Your task to perform on an android device: Play the last video I watched on Youtube Image 0: 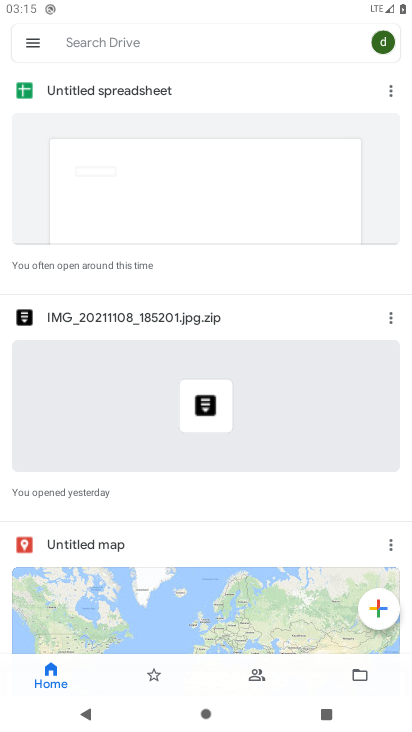
Step 0: press home button
Your task to perform on an android device: Play the last video I watched on Youtube Image 1: 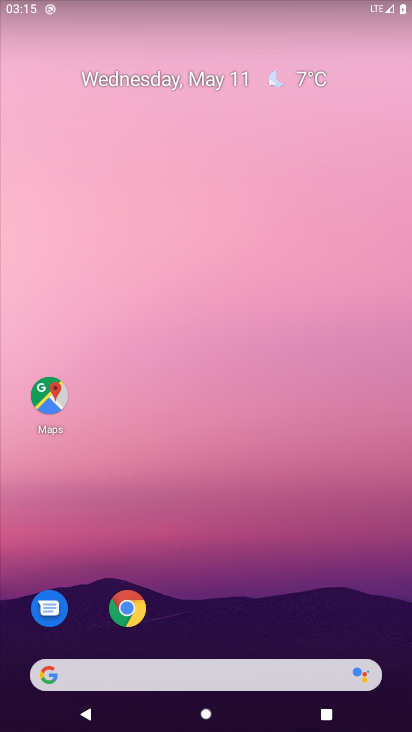
Step 1: drag from (205, 637) to (239, 89)
Your task to perform on an android device: Play the last video I watched on Youtube Image 2: 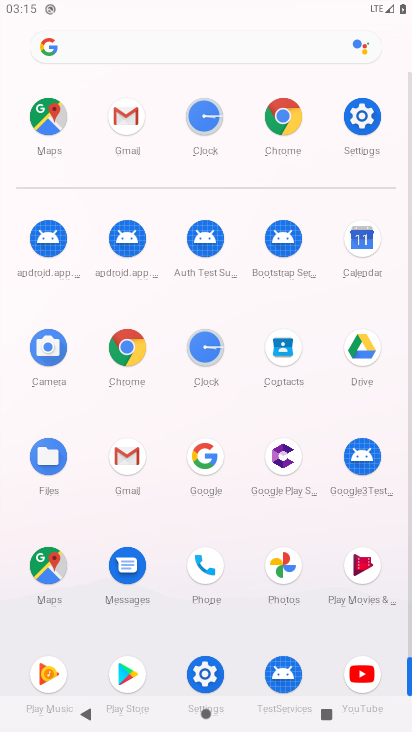
Step 2: click (363, 668)
Your task to perform on an android device: Play the last video I watched on Youtube Image 3: 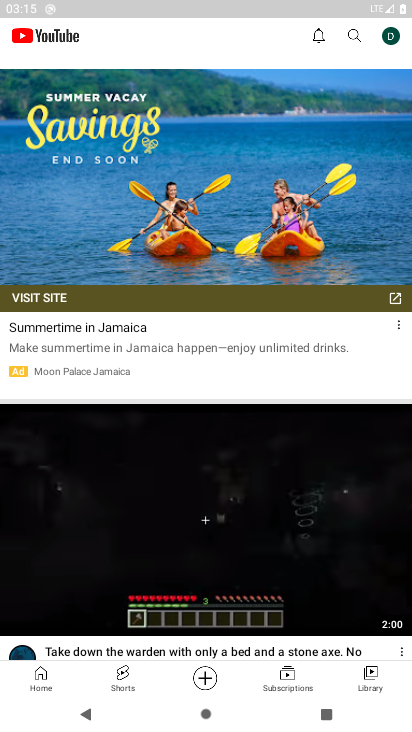
Step 3: click (361, 670)
Your task to perform on an android device: Play the last video I watched on Youtube Image 4: 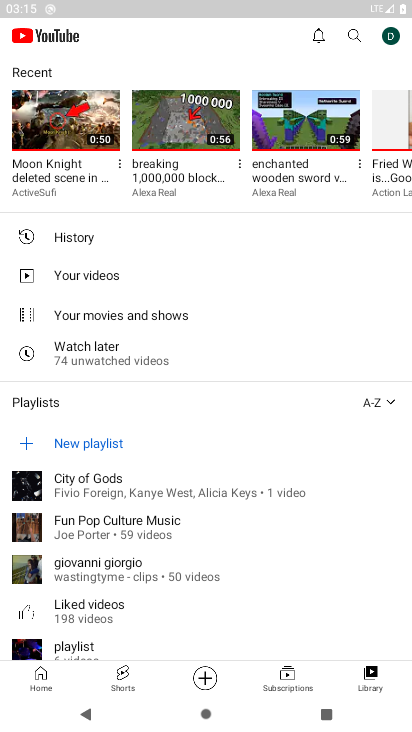
Step 4: click (74, 132)
Your task to perform on an android device: Play the last video I watched on Youtube Image 5: 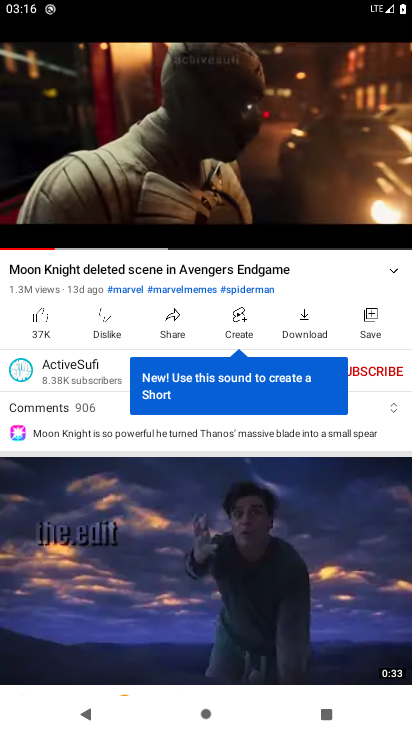
Step 5: task complete